Your task to perform on an android device: Open settings Image 0: 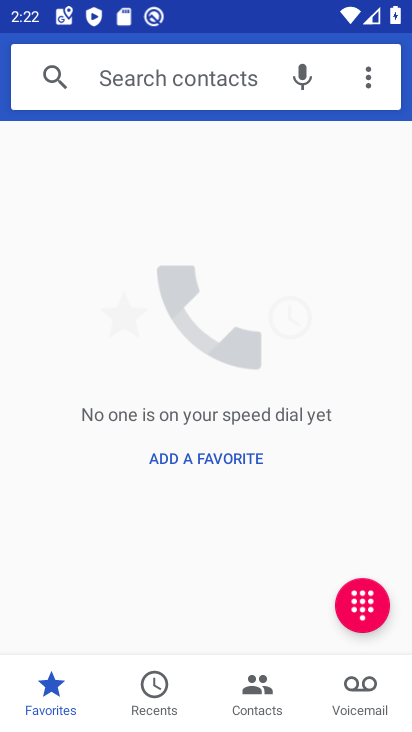
Step 0: press home button
Your task to perform on an android device: Open settings Image 1: 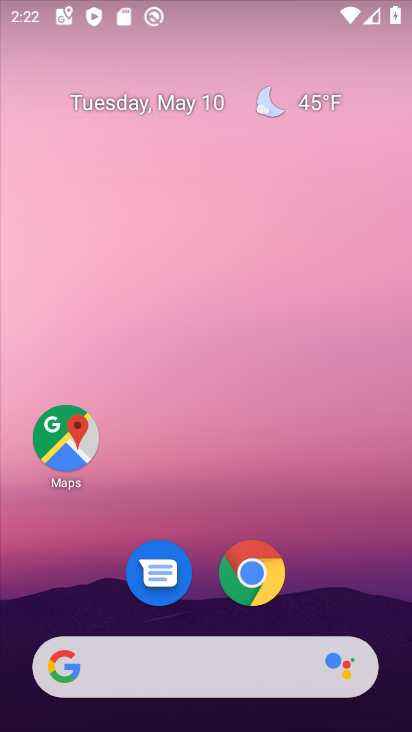
Step 1: drag from (214, 622) to (267, 191)
Your task to perform on an android device: Open settings Image 2: 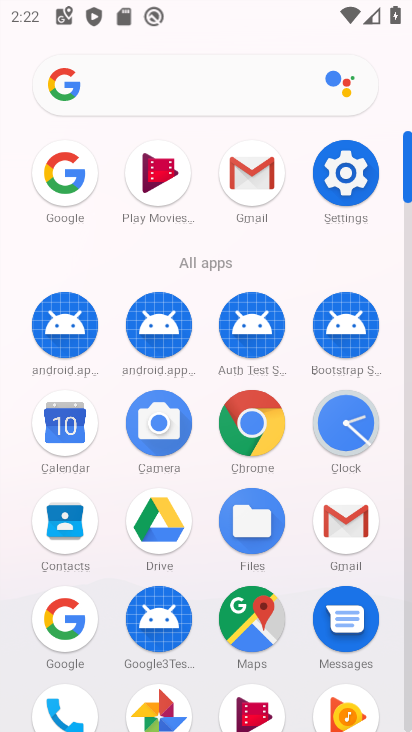
Step 2: click (331, 202)
Your task to perform on an android device: Open settings Image 3: 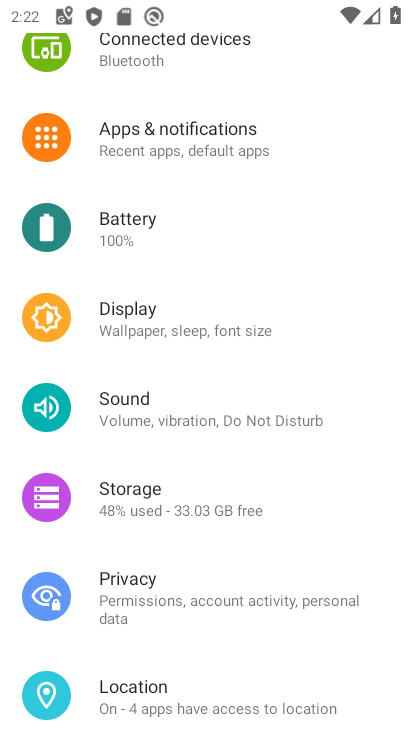
Step 3: task complete